Your task to perform on an android device: open chrome privacy settings Image 0: 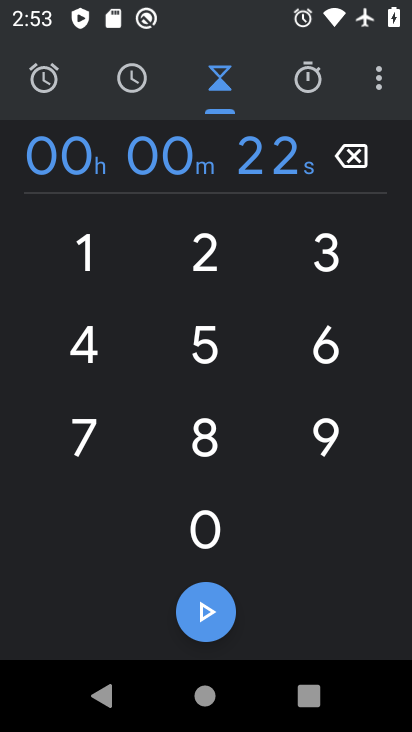
Step 0: press home button
Your task to perform on an android device: open chrome privacy settings Image 1: 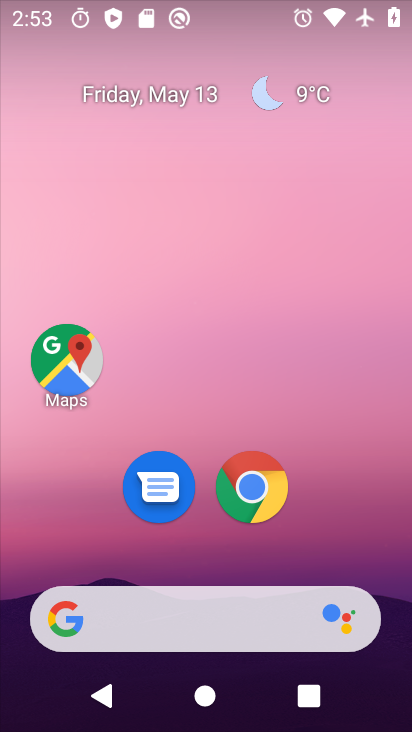
Step 1: click (252, 490)
Your task to perform on an android device: open chrome privacy settings Image 2: 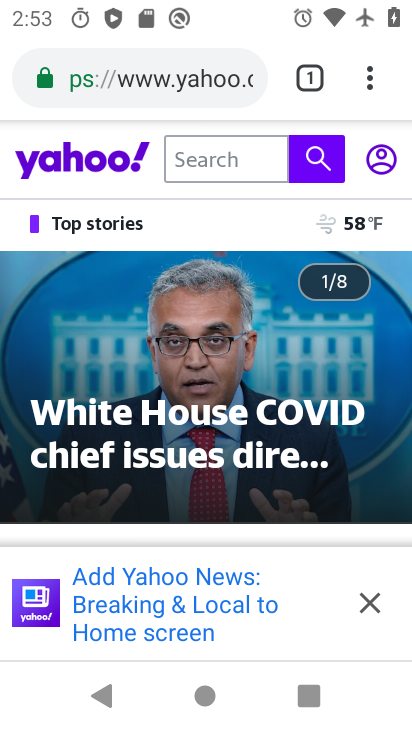
Step 2: click (357, 80)
Your task to perform on an android device: open chrome privacy settings Image 3: 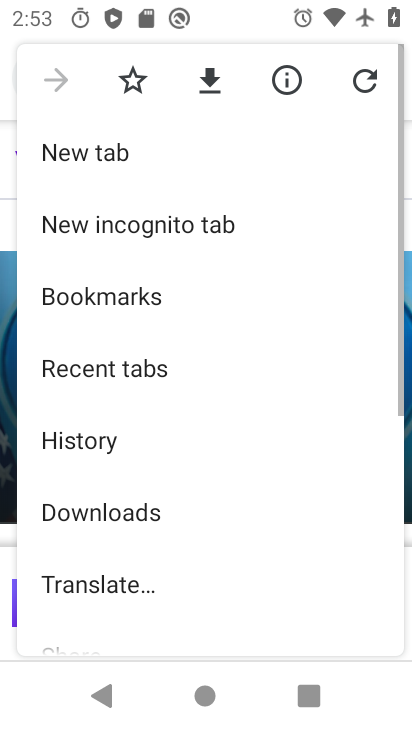
Step 3: drag from (174, 525) to (235, 125)
Your task to perform on an android device: open chrome privacy settings Image 4: 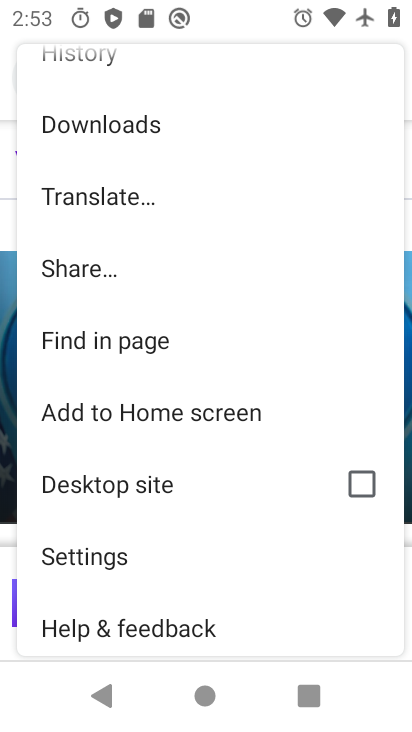
Step 4: click (125, 538)
Your task to perform on an android device: open chrome privacy settings Image 5: 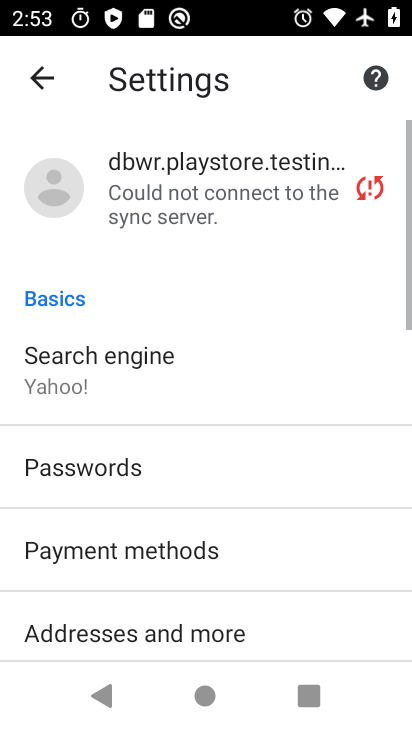
Step 5: drag from (238, 543) to (229, 136)
Your task to perform on an android device: open chrome privacy settings Image 6: 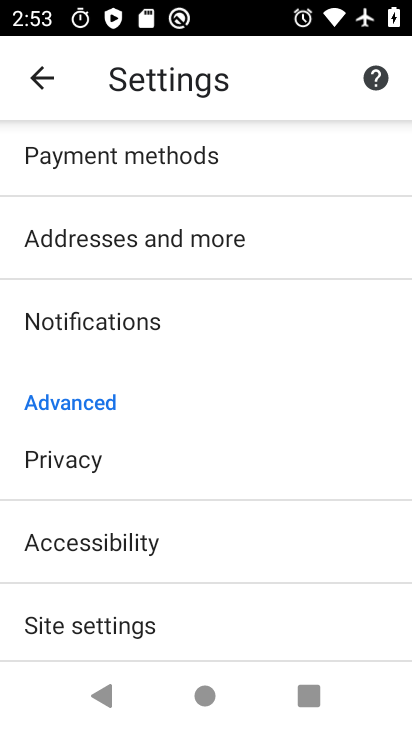
Step 6: click (84, 460)
Your task to perform on an android device: open chrome privacy settings Image 7: 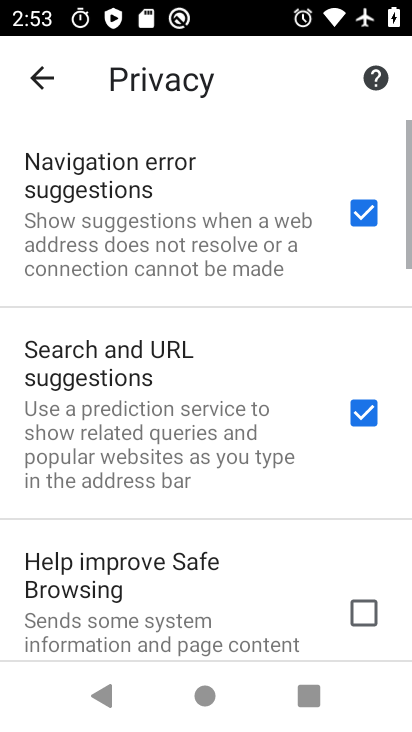
Step 7: task complete